Your task to perform on an android device: turn off location history Image 0: 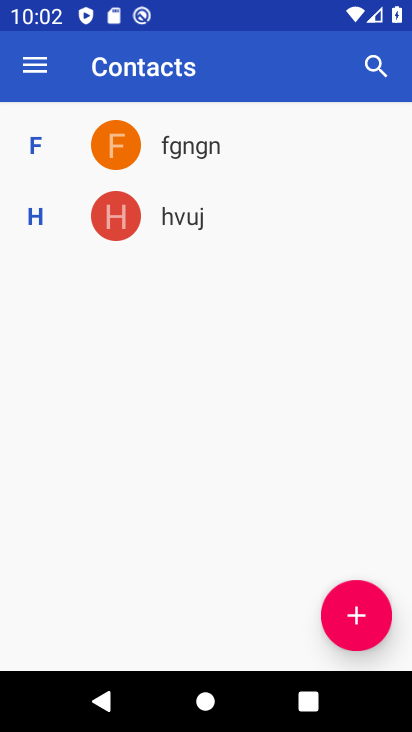
Step 0: press home button
Your task to perform on an android device: turn off location history Image 1: 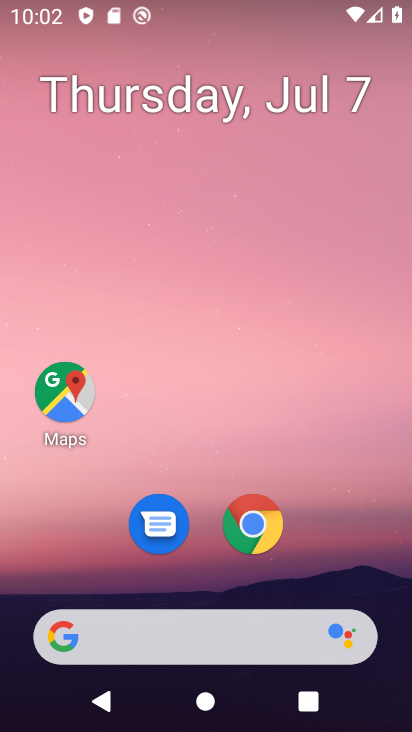
Step 1: drag from (215, 432) to (258, 21)
Your task to perform on an android device: turn off location history Image 2: 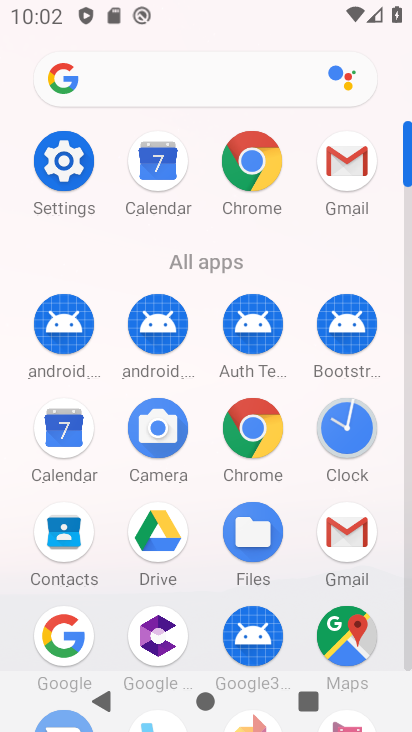
Step 2: click (77, 176)
Your task to perform on an android device: turn off location history Image 3: 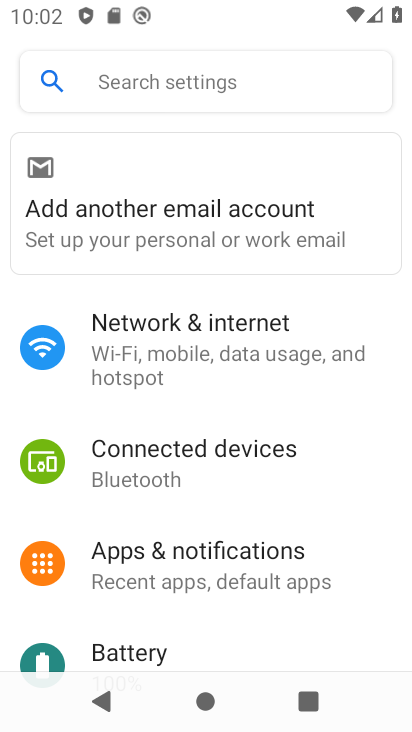
Step 3: drag from (230, 515) to (231, 121)
Your task to perform on an android device: turn off location history Image 4: 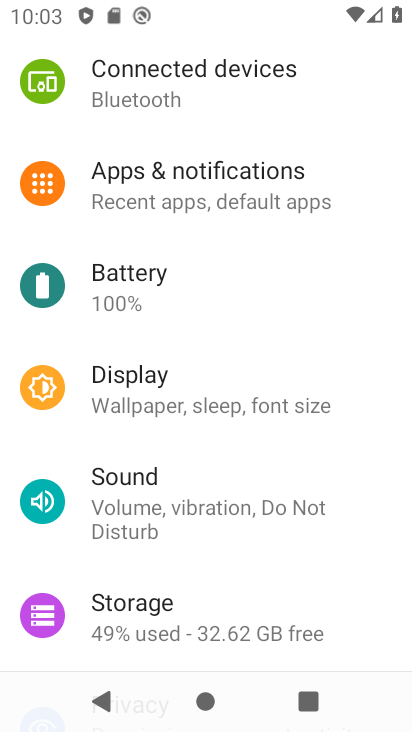
Step 4: drag from (197, 578) to (202, 158)
Your task to perform on an android device: turn off location history Image 5: 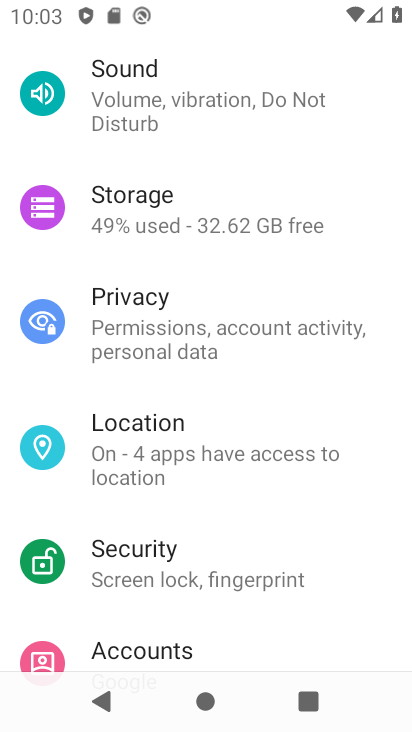
Step 5: click (200, 437)
Your task to perform on an android device: turn off location history Image 6: 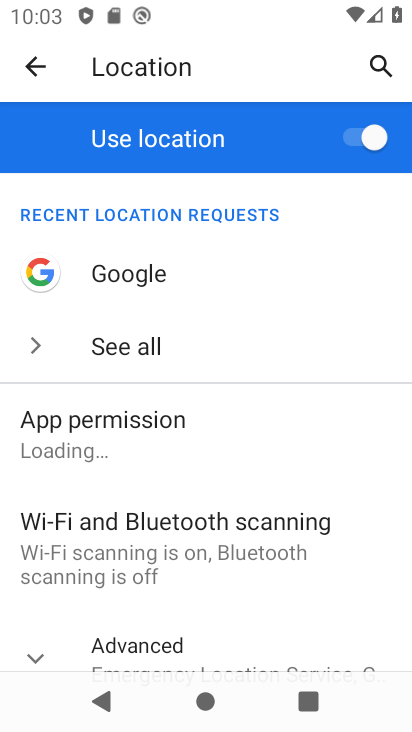
Step 6: drag from (249, 477) to (246, 148)
Your task to perform on an android device: turn off location history Image 7: 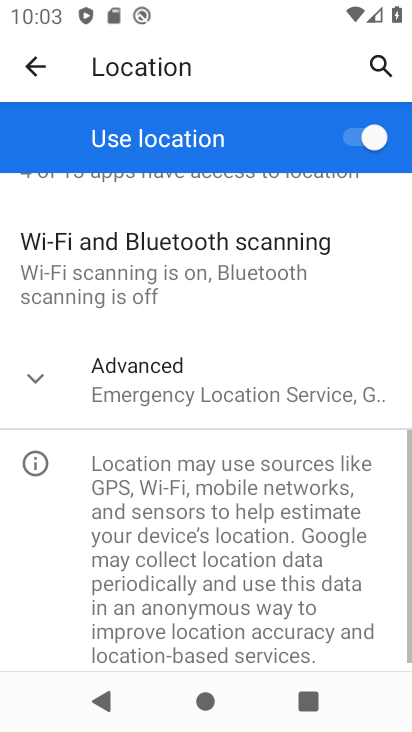
Step 7: click (37, 371)
Your task to perform on an android device: turn off location history Image 8: 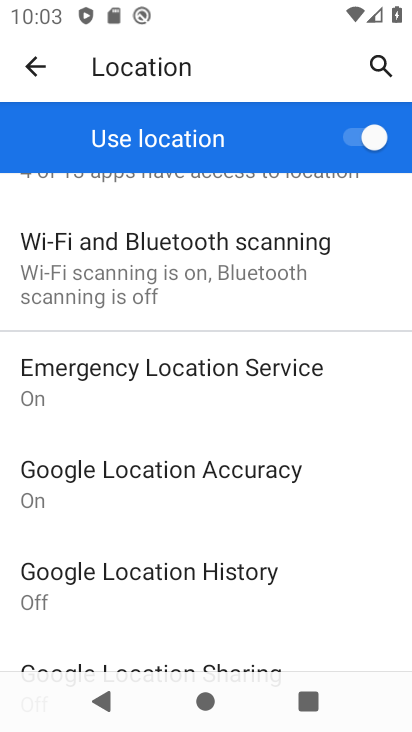
Step 8: click (247, 581)
Your task to perform on an android device: turn off location history Image 9: 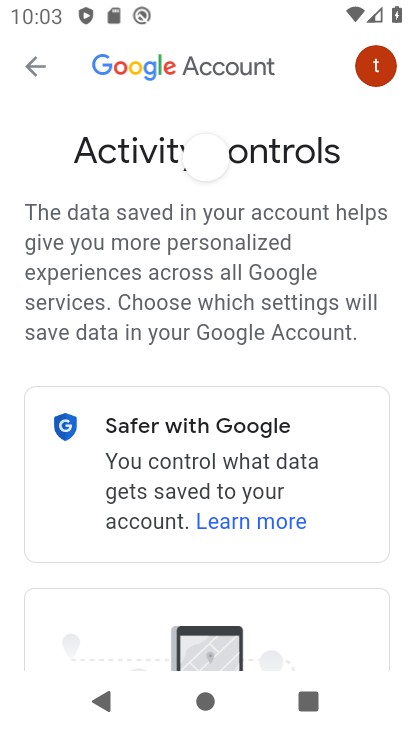
Step 9: task complete